Your task to perform on an android device: Open the web browser Image 0: 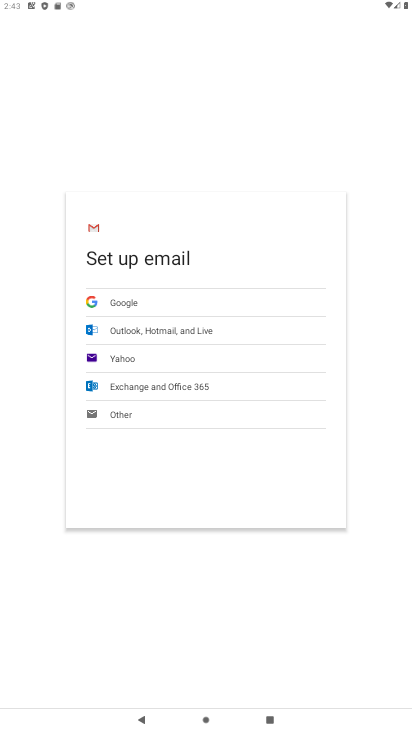
Step 0: press home button
Your task to perform on an android device: Open the web browser Image 1: 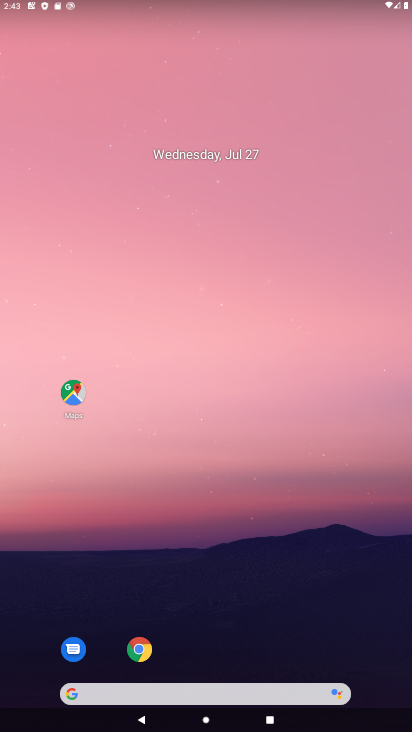
Step 1: drag from (354, 620) to (183, 9)
Your task to perform on an android device: Open the web browser Image 2: 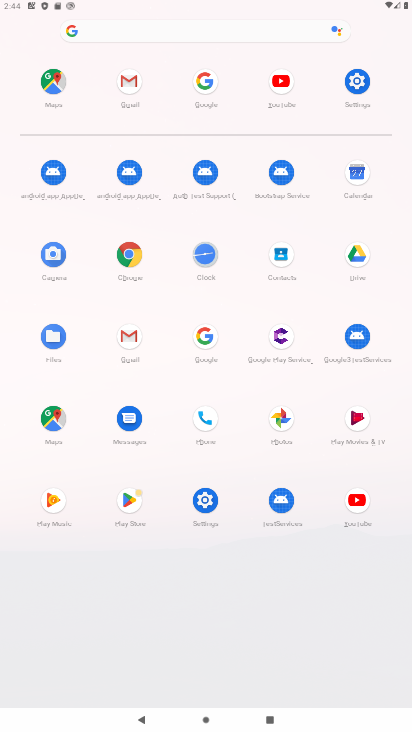
Step 2: click (214, 342)
Your task to perform on an android device: Open the web browser Image 3: 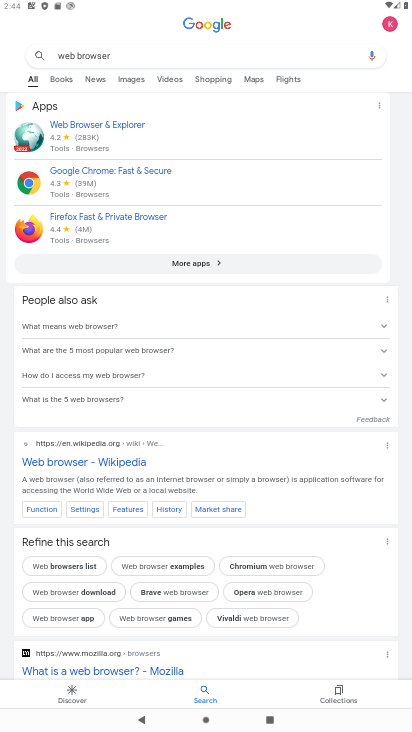
Step 3: task complete